Your task to perform on an android device: Open CNN.com Image 0: 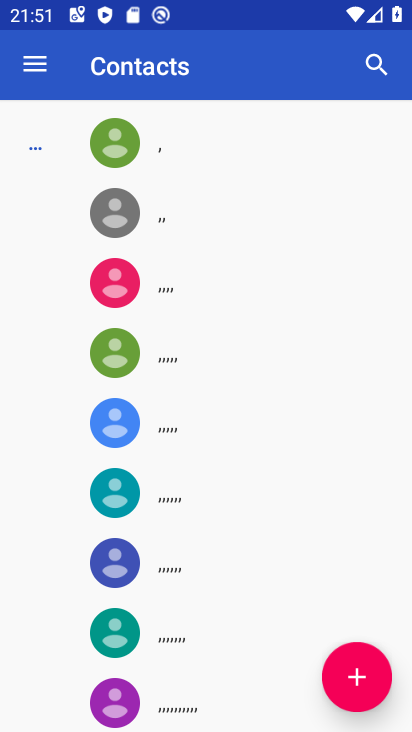
Step 0: press home button
Your task to perform on an android device: Open CNN.com Image 1: 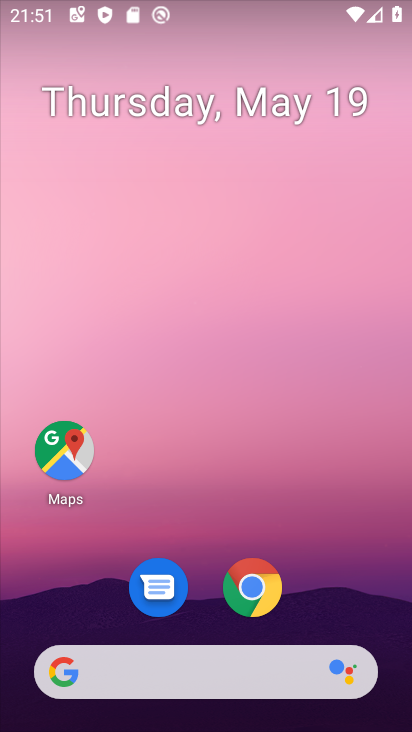
Step 1: click (251, 599)
Your task to perform on an android device: Open CNN.com Image 2: 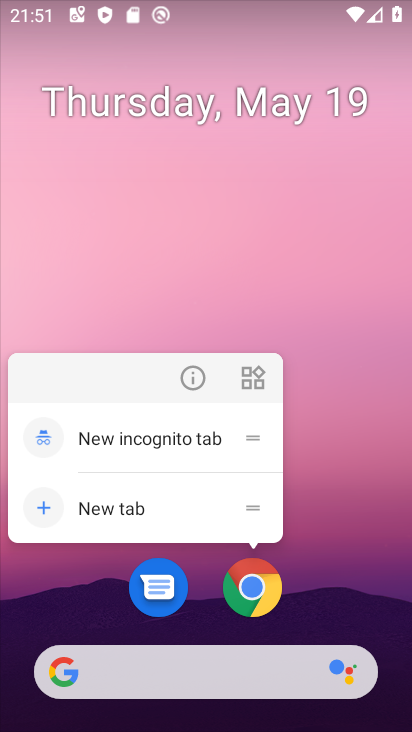
Step 2: click (264, 600)
Your task to perform on an android device: Open CNN.com Image 3: 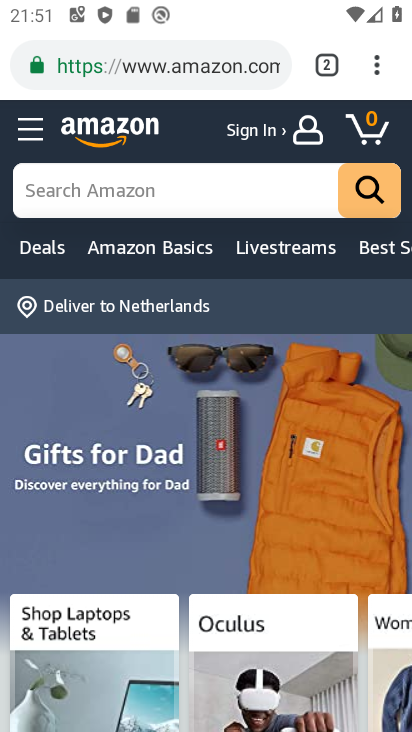
Step 3: click (208, 79)
Your task to perform on an android device: Open CNN.com Image 4: 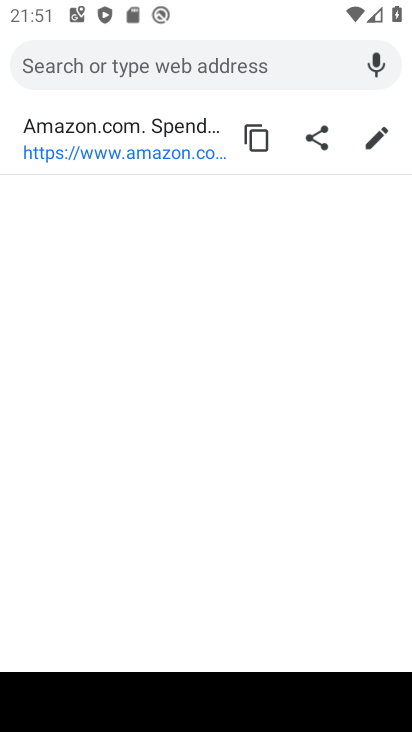
Step 4: type "cnn.com"
Your task to perform on an android device: Open CNN.com Image 5: 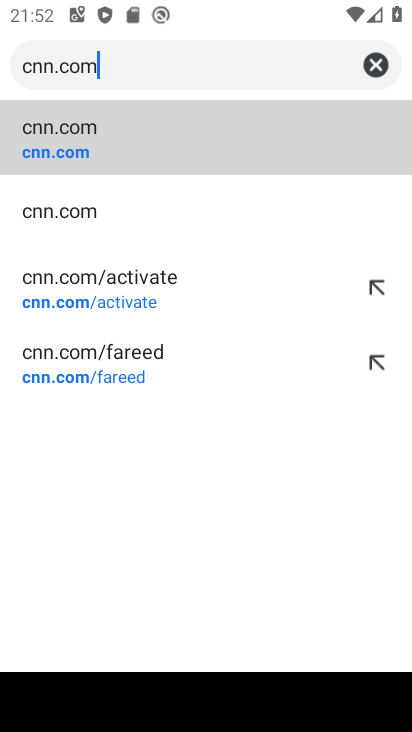
Step 5: click (254, 121)
Your task to perform on an android device: Open CNN.com Image 6: 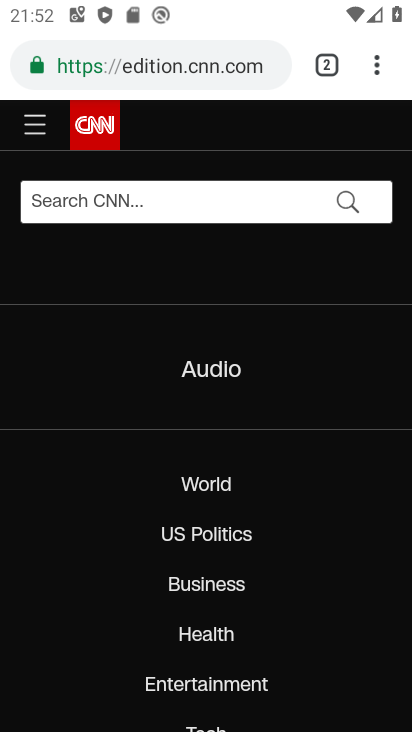
Step 6: task complete